Your task to perform on an android device: Open notification settings Image 0: 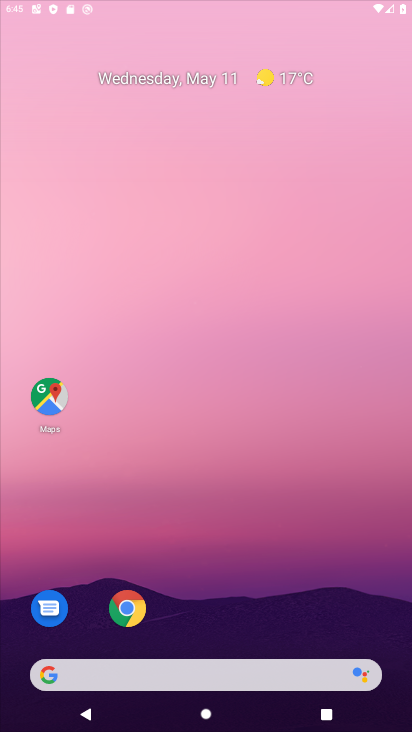
Step 0: click (131, 607)
Your task to perform on an android device: Open notification settings Image 1: 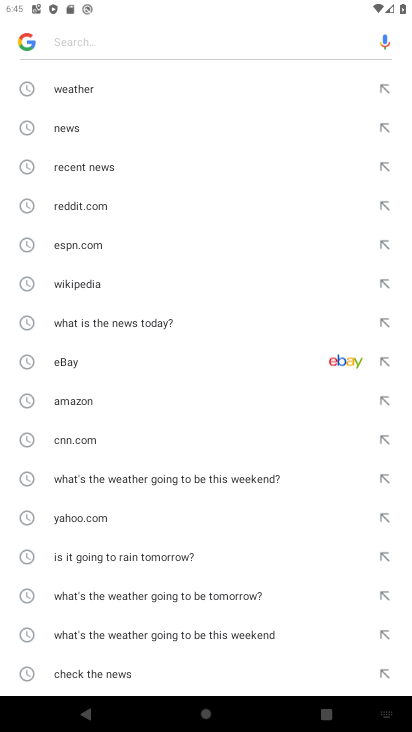
Step 1: press home button
Your task to perform on an android device: Open notification settings Image 2: 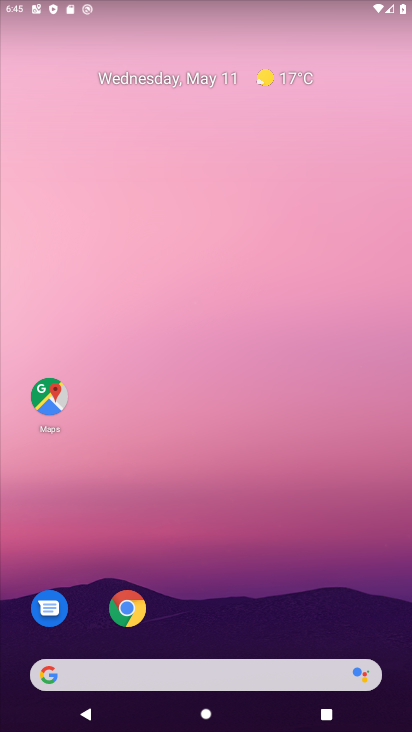
Step 2: drag from (258, 600) to (255, 88)
Your task to perform on an android device: Open notification settings Image 3: 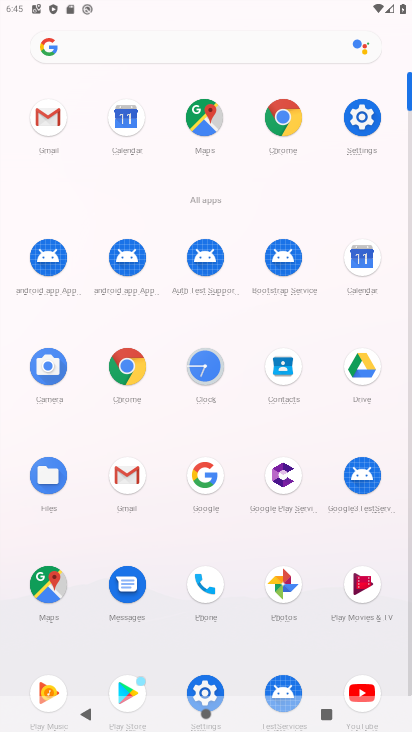
Step 3: click (361, 123)
Your task to perform on an android device: Open notification settings Image 4: 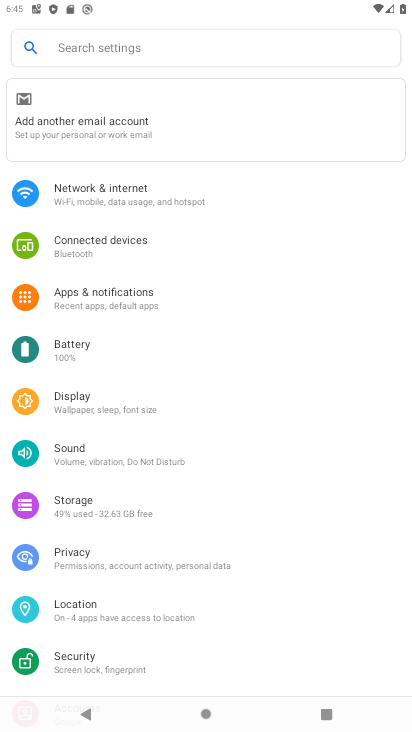
Step 4: click (158, 309)
Your task to perform on an android device: Open notification settings Image 5: 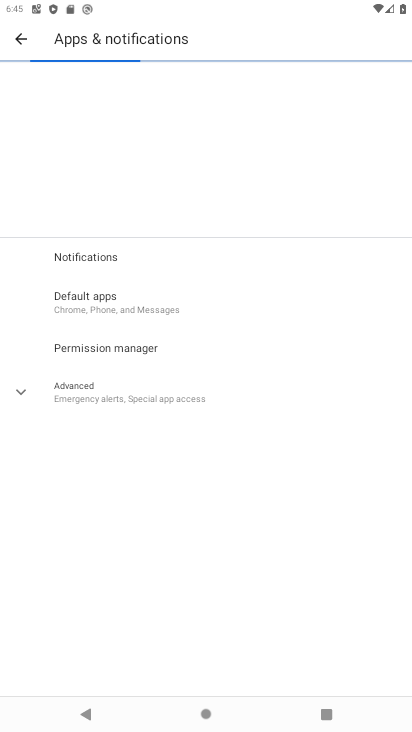
Step 5: task complete